Your task to perform on an android device: Play the last video I watched on Youtube Image 0: 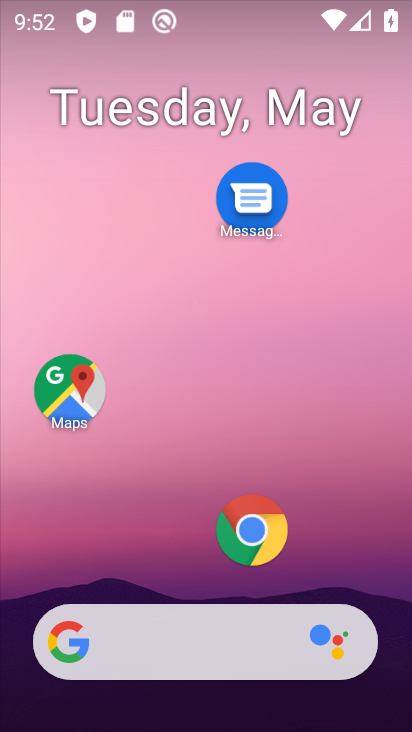
Step 0: drag from (206, 584) to (174, 3)
Your task to perform on an android device: Play the last video I watched on Youtube Image 1: 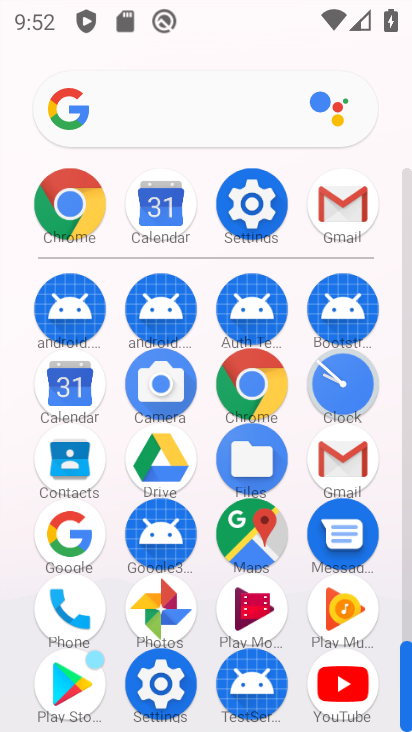
Step 1: click (350, 688)
Your task to perform on an android device: Play the last video I watched on Youtube Image 2: 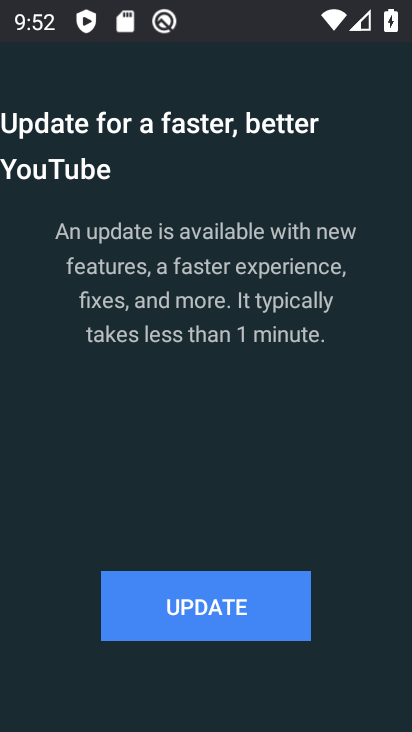
Step 2: click (200, 617)
Your task to perform on an android device: Play the last video I watched on Youtube Image 3: 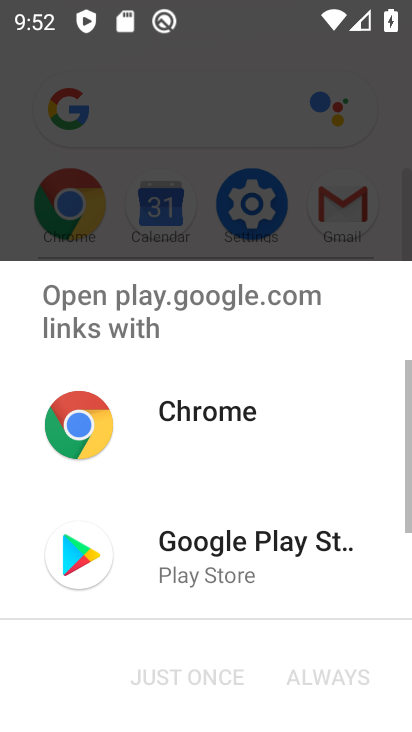
Step 3: click (256, 575)
Your task to perform on an android device: Play the last video I watched on Youtube Image 4: 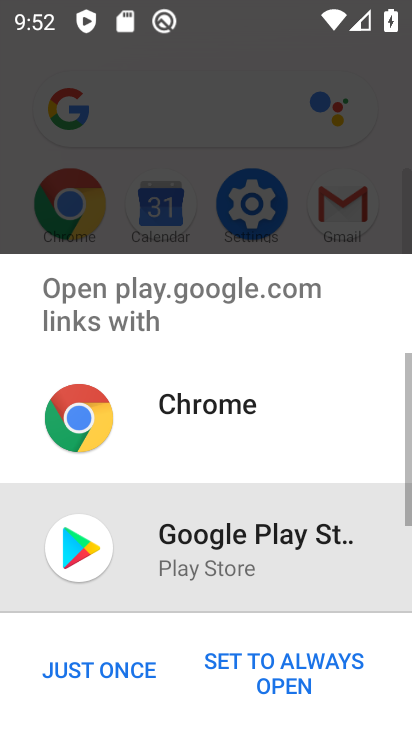
Step 4: click (277, 681)
Your task to perform on an android device: Play the last video I watched on Youtube Image 5: 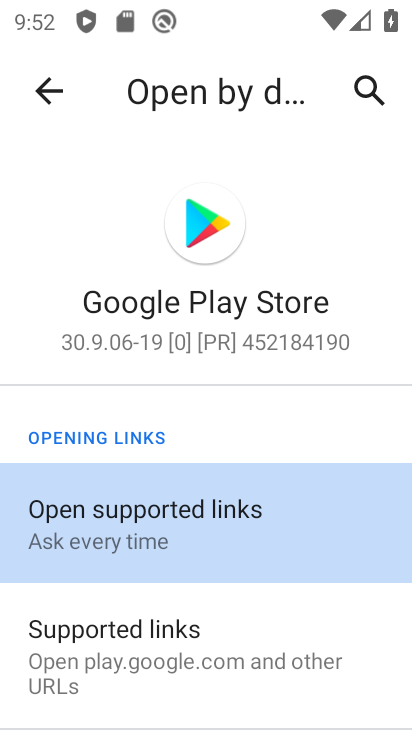
Step 5: click (149, 516)
Your task to perform on an android device: Play the last video I watched on Youtube Image 6: 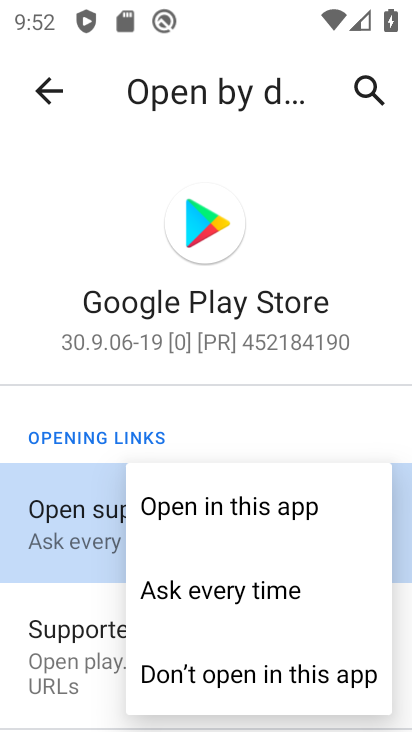
Step 6: click (173, 504)
Your task to perform on an android device: Play the last video I watched on Youtube Image 7: 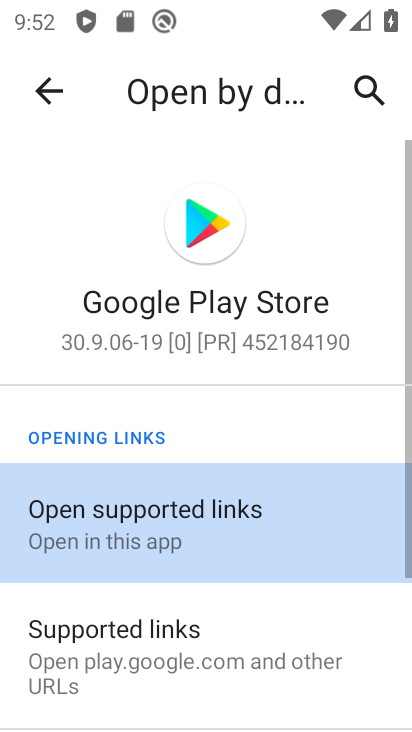
Step 7: click (48, 95)
Your task to perform on an android device: Play the last video I watched on Youtube Image 8: 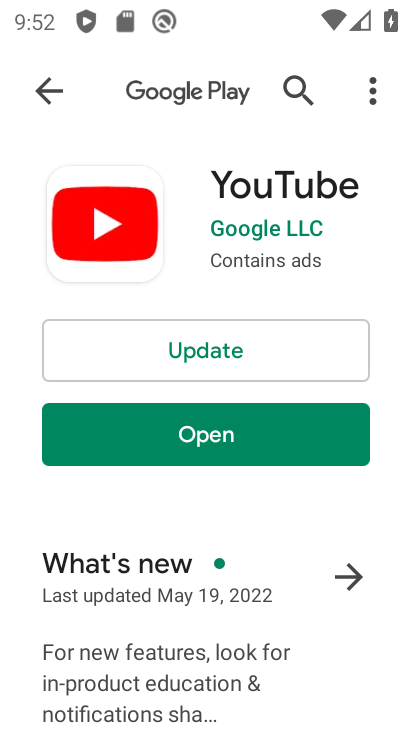
Step 8: click (189, 348)
Your task to perform on an android device: Play the last video I watched on Youtube Image 9: 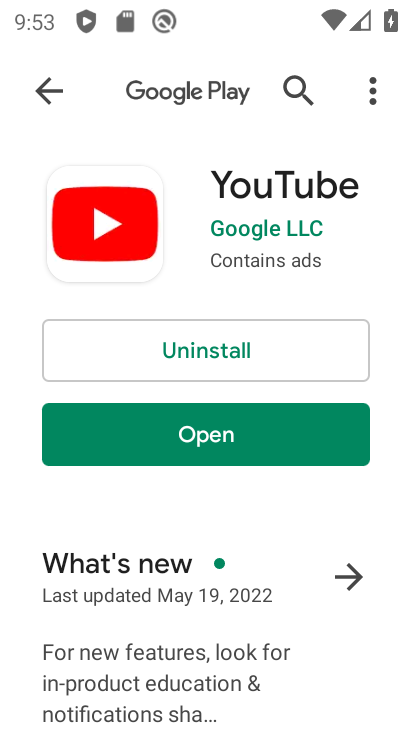
Step 9: click (199, 456)
Your task to perform on an android device: Play the last video I watched on Youtube Image 10: 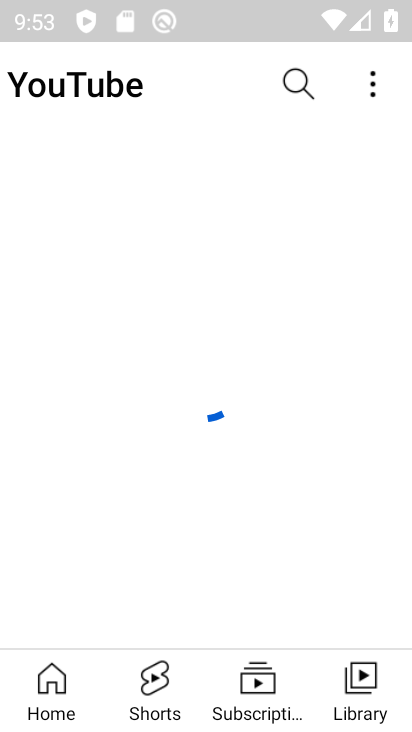
Step 10: click (356, 697)
Your task to perform on an android device: Play the last video I watched on Youtube Image 11: 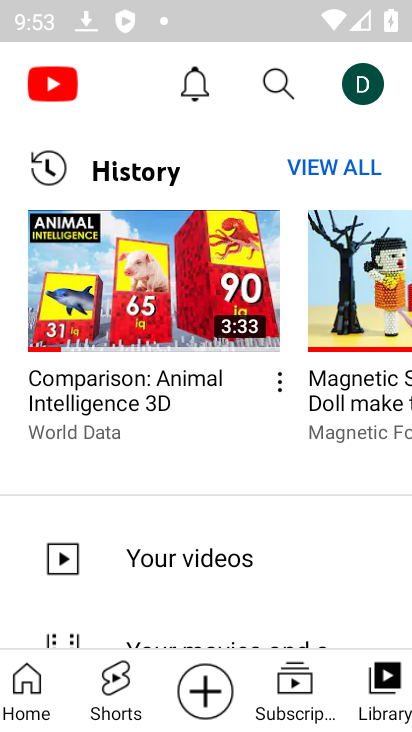
Step 11: task complete